Your task to perform on an android device: Open Yahoo.com Image 0: 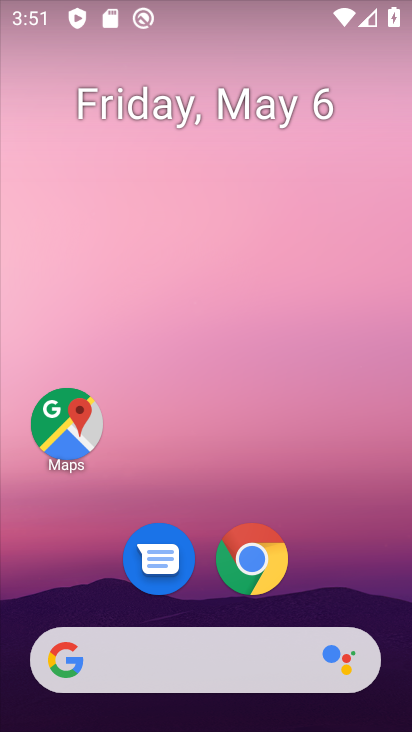
Step 0: click (270, 560)
Your task to perform on an android device: Open Yahoo.com Image 1: 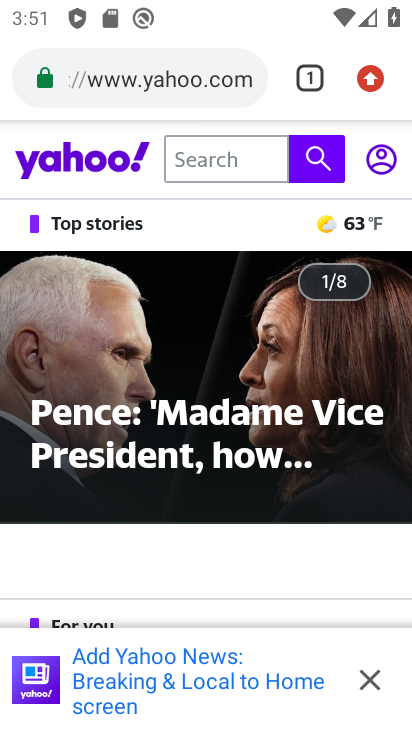
Step 1: task complete